Your task to perform on an android device: check out phone information Image 0: 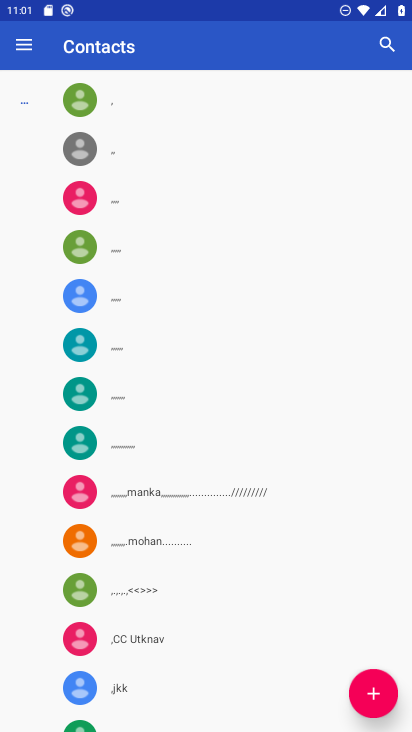
Step 0: press home button
Your task to perform on an android device: check out phone information Image 1: 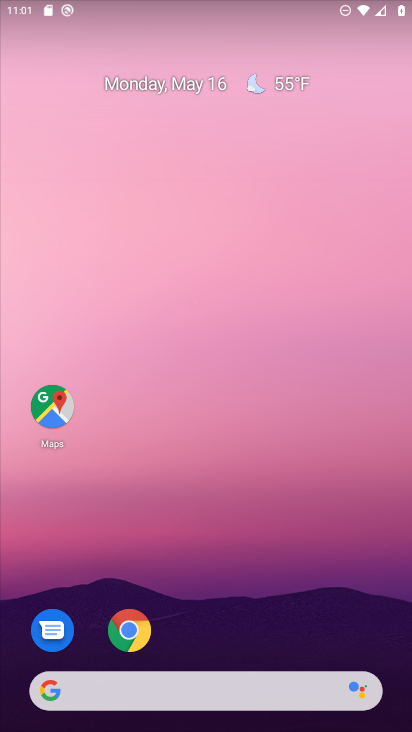
Step 1: drag from (198, 628) to (205, 150)
Your task to perform on an android device: check out phone information Image 2: 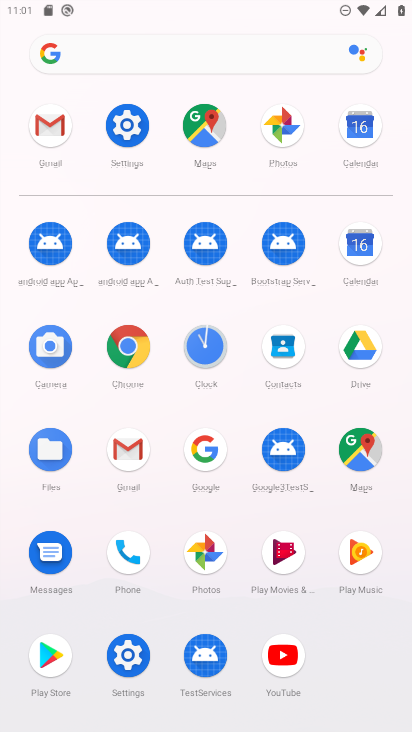
Step 2: click (139, 116)
Your task to perform on an android device: check out phone information Image 3: 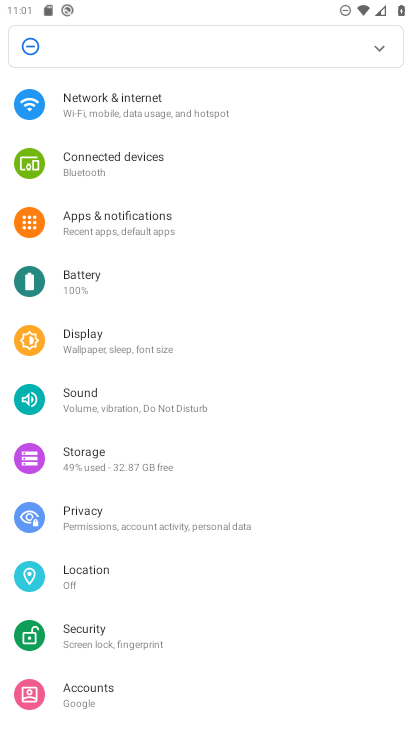
Step 3: drag from (191, 713) to (196, 262)
Your task to perform on an android device: check out phone information Image 4: 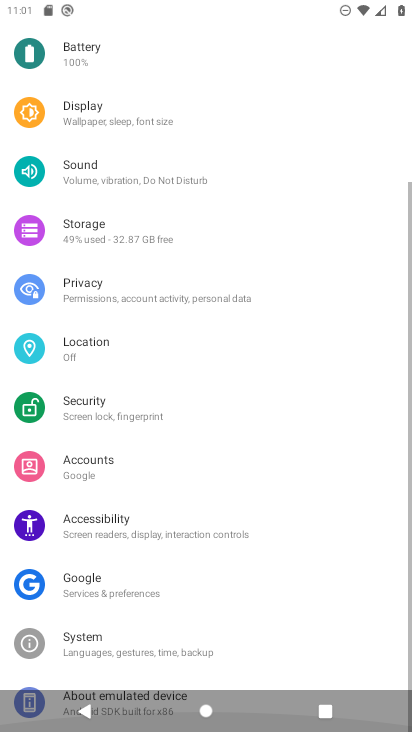
Step 4: drag from (187, 525) to (184, 306)
Your task to perform on an android device: check out phone information Image 5: 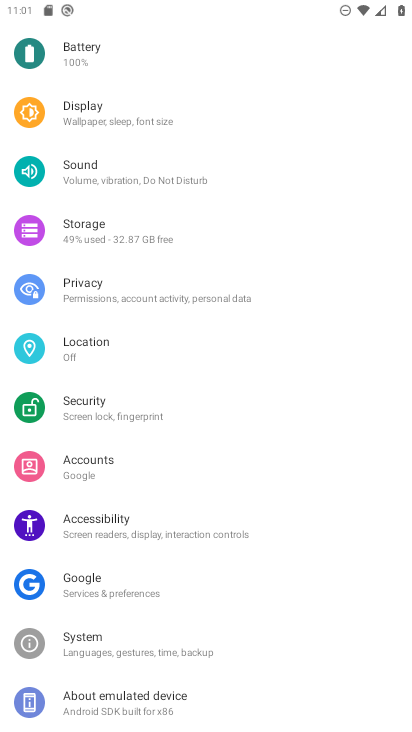
Step 5: click (128, 690)
Your task to perform on an android device: check out phone information Image 6: 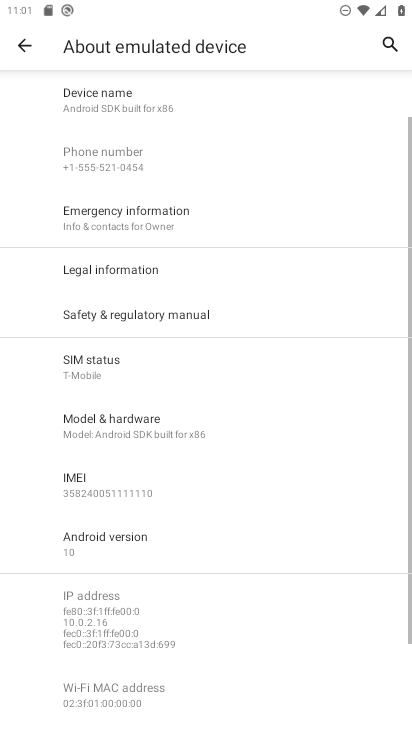
Step 6: task complete